Your task to perform on an android device: Open network settings Image 0: 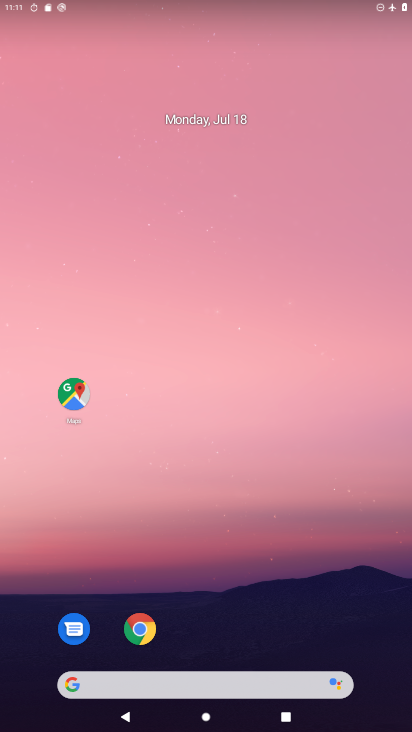
Step 0: drag from (245, 611) to (203, 84)
Your task to perform on an android device: Open network settings Image 1: 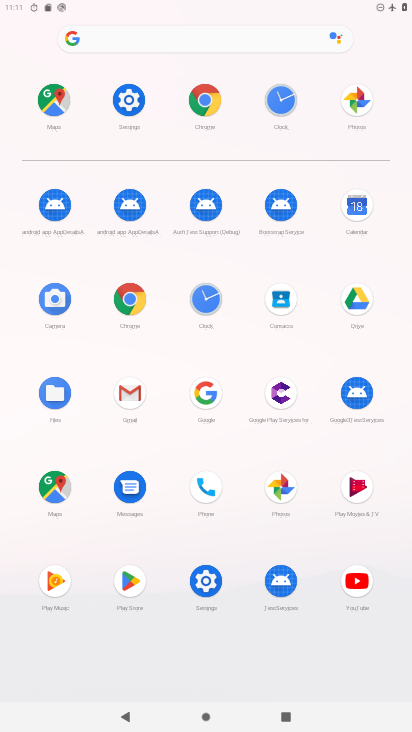
Step 1: click (127, 96)
Your task to perform on an android device: Open network settings Image 2: 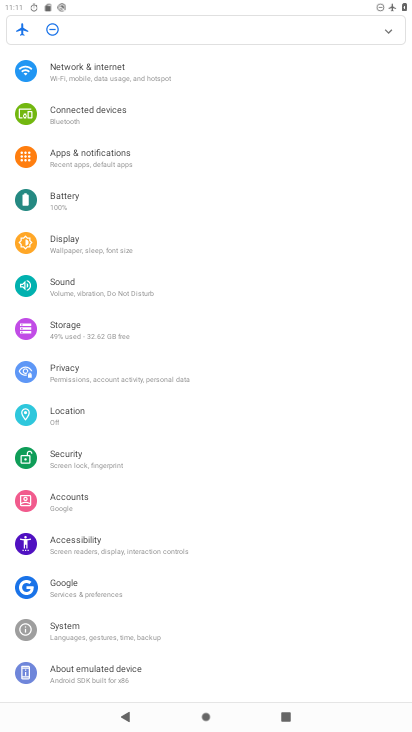
Step 2: click (86, 76)
Your task to perform on an android device: Open network settings Image 3: 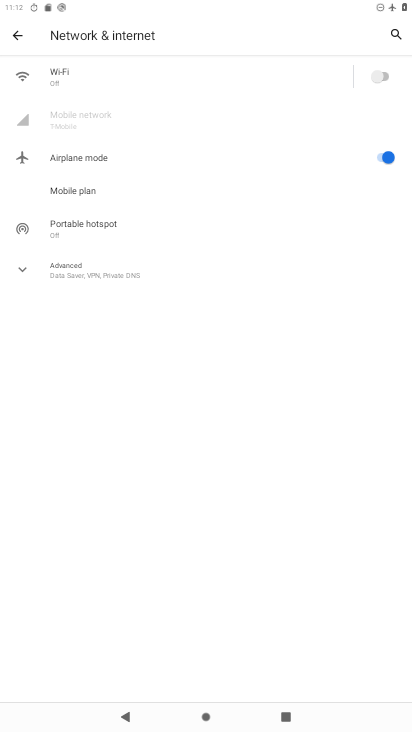
Step 3: task complete